Your task to perform on an android device: toggle notification dots Image 0: 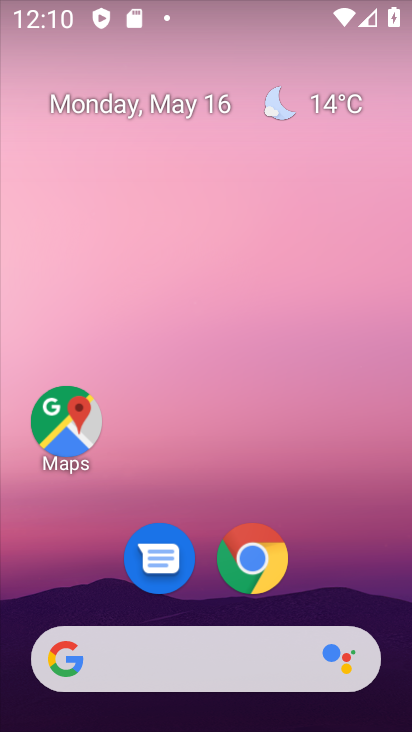
Step 0: drag from (359, 569) to (360, 118)
Your task to perform on an android device: toggle notification dots Image 1: 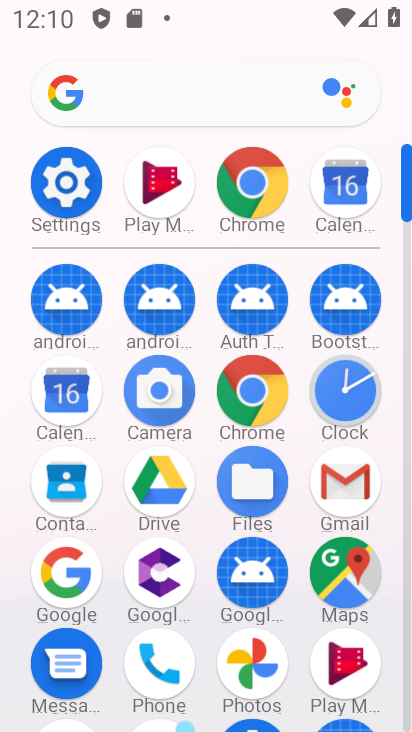
Step 1: click (65, 207)
Your task to perform on an android device: toggle notification dots Image 2: 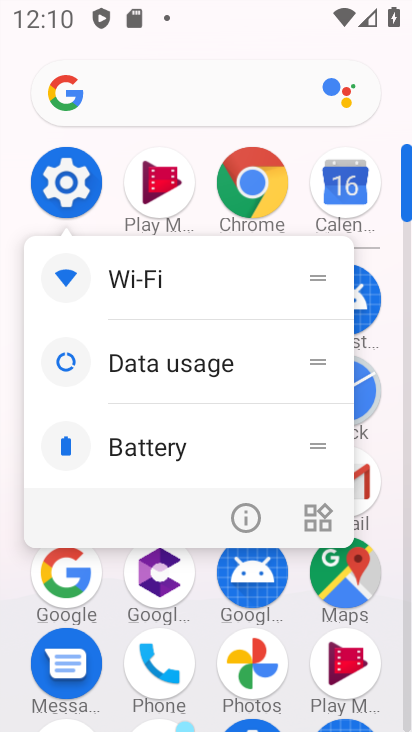
Step 2: click (65, 207)
Your task to perform on an android device: toggle notification dots Image 3: 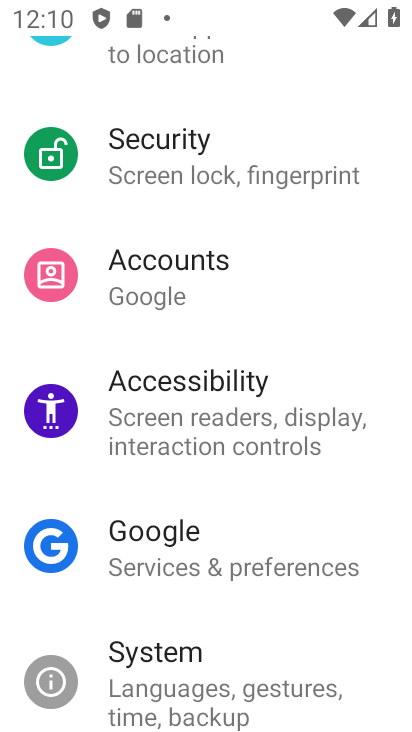
Step 3: drag from (331, 287) to (360, 498)
Your task to perform on an android device: toggle notification dots Image 4: 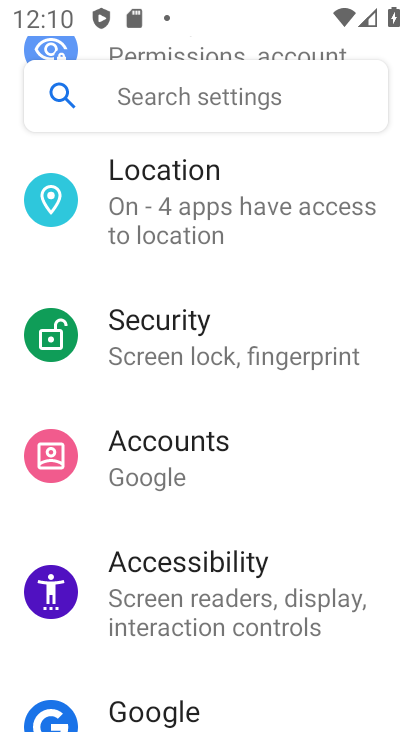
Step 4: drag from (355, 264) to (357, 421)
Your task to perform on an android device: toggle notification dots Image 5: 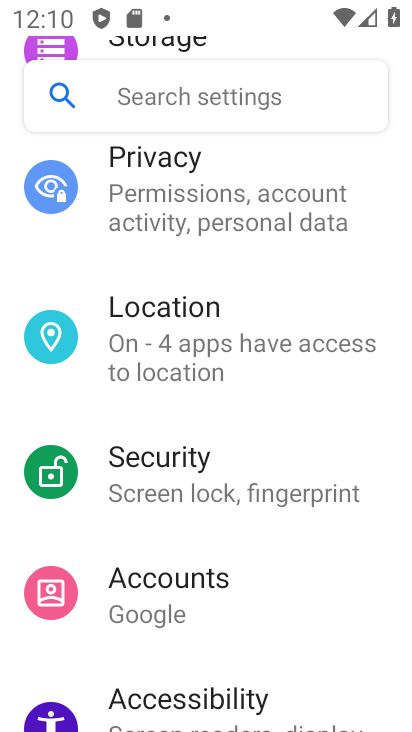
Step 5: drag from (372, 251) to (366, 455)
Your task to perform on an android device: toggle notification dots Image 6: 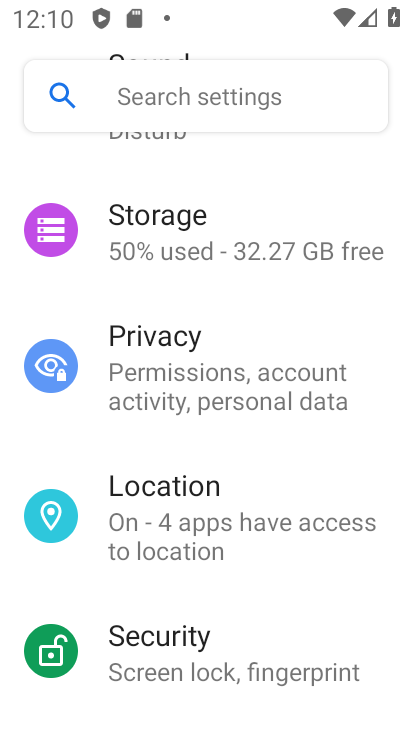
Step 6: drag from (377, 300) to (378, 457)
Your task to perform on an android device: toggle notification dots Image 7: 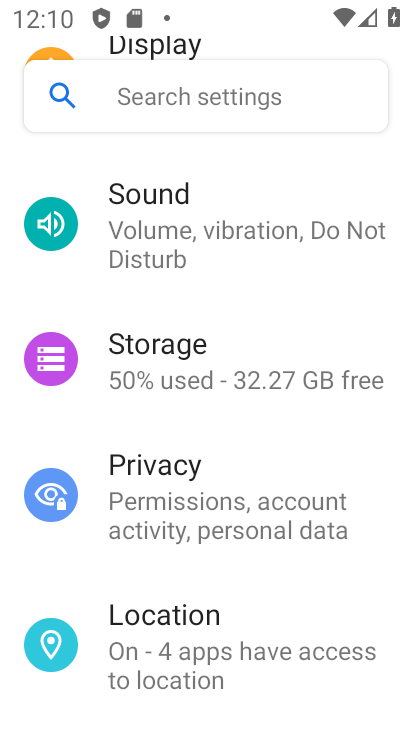
Step 7: drag from (368, 293) to (366, 435)
Your task to perform on an android device: toggle notification dots Image 8: 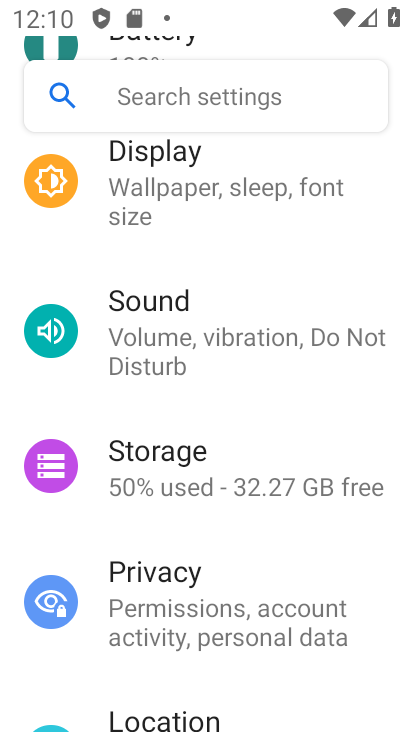
Step 8: drag from (363, 231) to (360, 386)
Your task to perform on an android device: toggle notification dots Image 9: 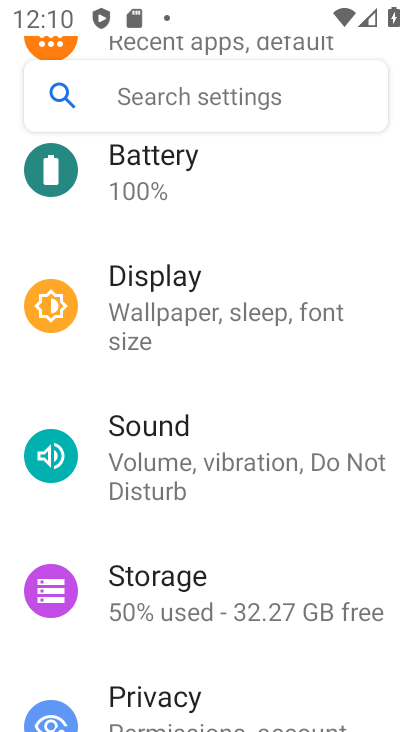
Step 9: drag from (363, 187) to (362, 377)
Your task to perform on an android device: toggle notification dots Image 10: 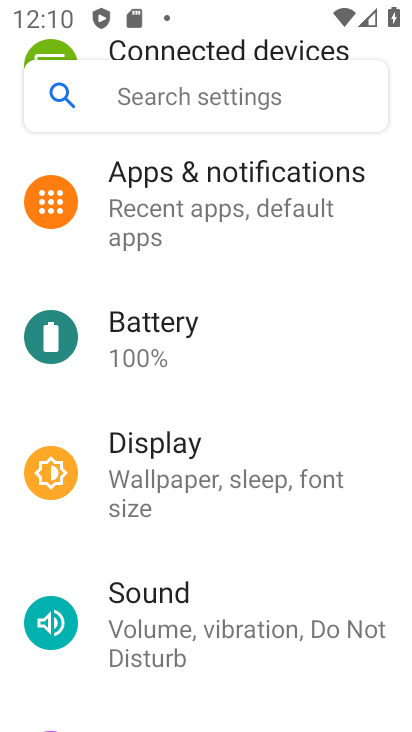
Step 10: drag from (365, 223) to (365, 372)
Your task to perform on an android device: toggle notification dots Image 11: 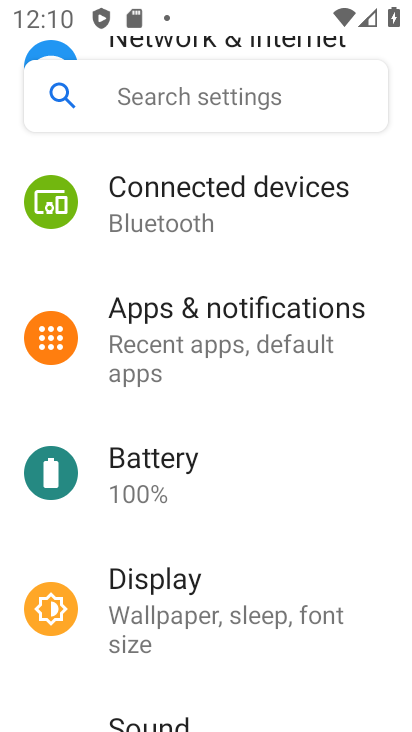
Step 11: click (285, 339)
Your task to perform on an android device: toggle notification dots Image 12: 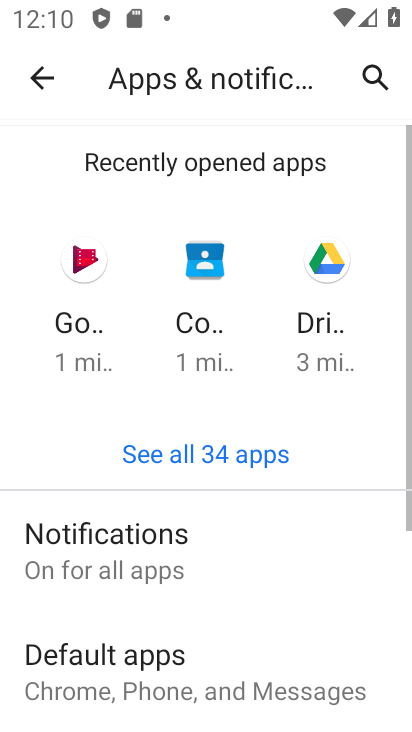
Step 12: drag from (280, 574) to (294, 385)
Your task to perform on an android device: toggle notification dots Image 13: 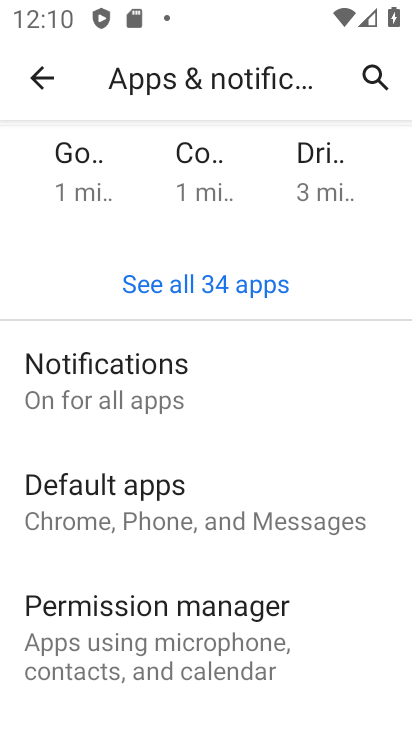
Step 13: drag from (324, 601) to (325, 375)
Your task to perform on an android device: toggle notification dots Image 14: 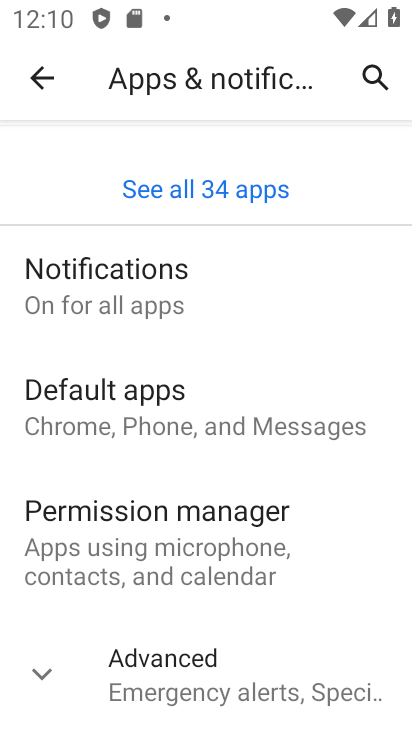
Step 14: click (137, 284)
Your task to perform on an android device: toggle notification dots Image 15: 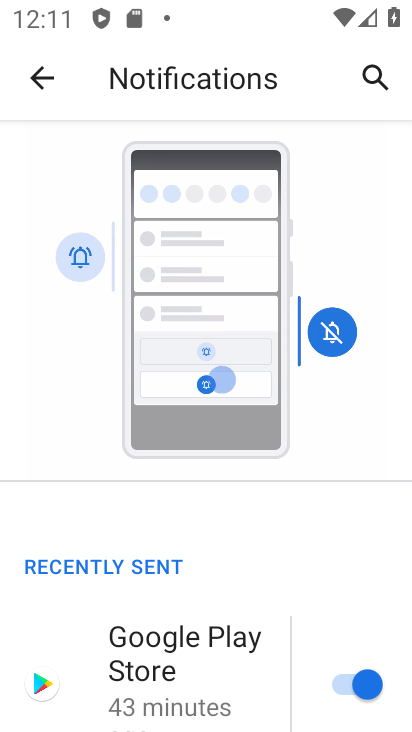
Step 15: drag from (257, 592) to (267, 409)
Your task to perform on an android device: toggle notification dots Image 16: 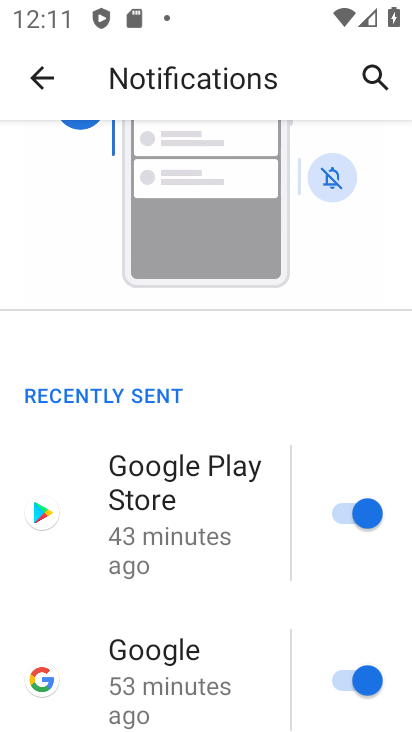
Step 16: drag from (249, 641) to (254, 429)
Your task to perform on an android device: toggle notification dots Image 17: 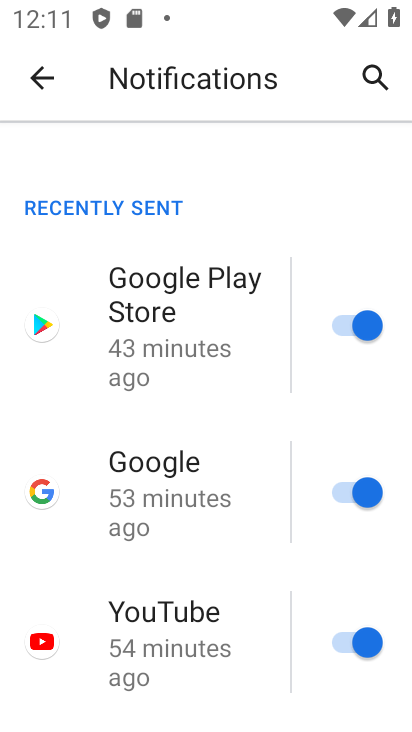
Step 17: drag from (247, 665) to (257, 449)
Your task to perform on an android device: toggle notification dots Image 18: 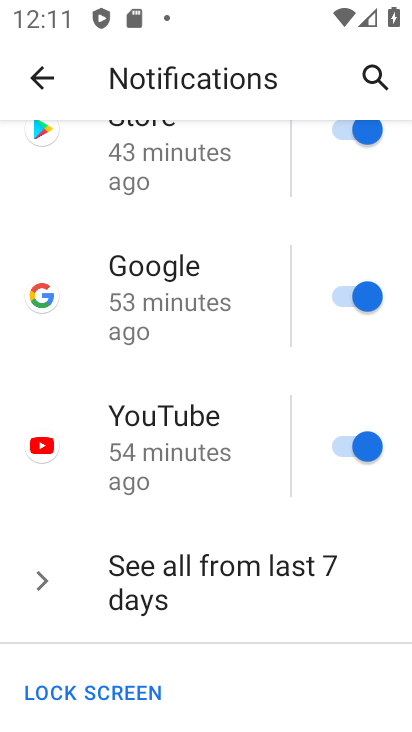
Step 18: drag from (244, 672) to (240, 471)
Your task to perform on an android device: toggle notification dots Image 19: 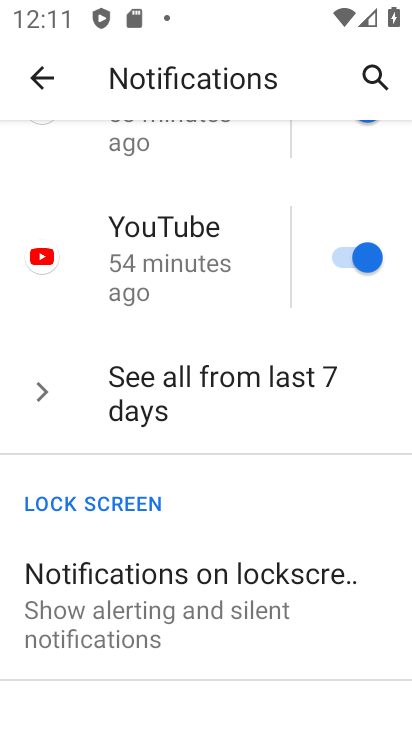
Step 19: drag from (255, 649) to (254, 419)
Your task to perform on an android device: toggle notification dots Image 20: 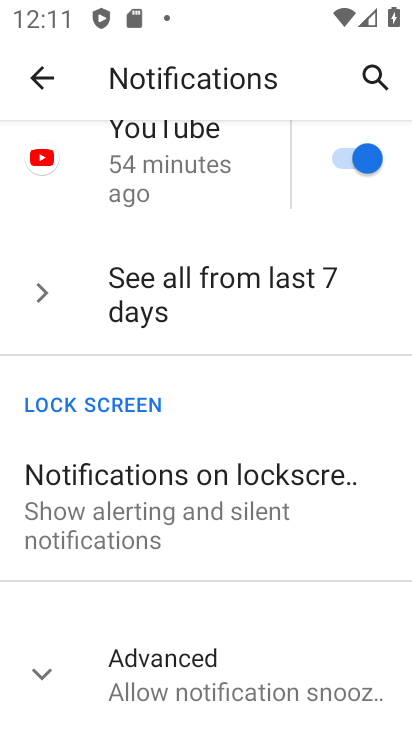
Step 20: click (256, 679)
Your task to perform on an android device: toggle notification dots Image 21: 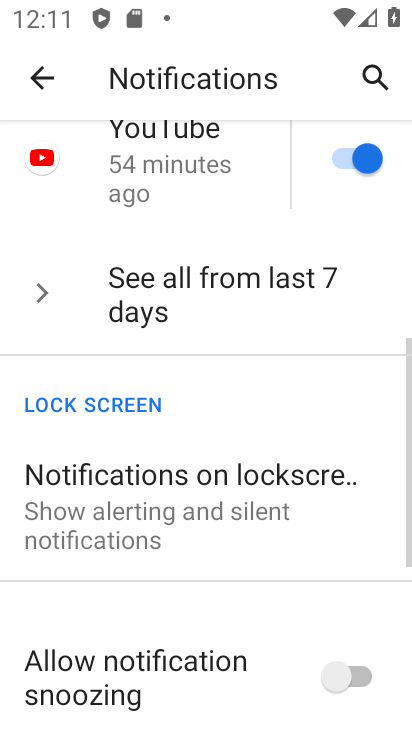
Step 21: task complete